Your task to perform on an android device: Open location settings Image 0: 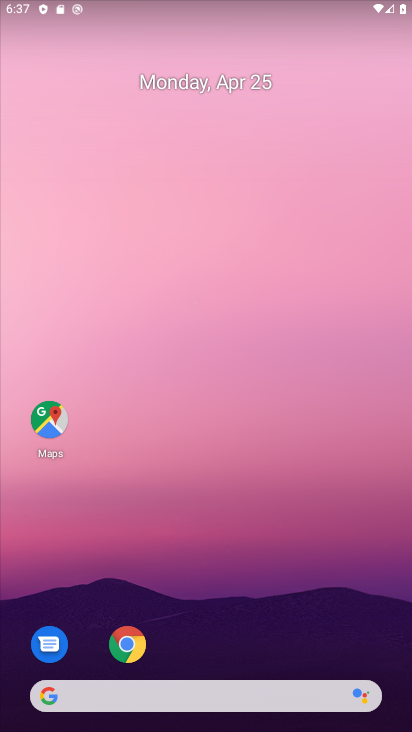
Step 0: drag from (256, 650) to (285, 170)
Your task to perform on an android device: Open location settings Image 1: 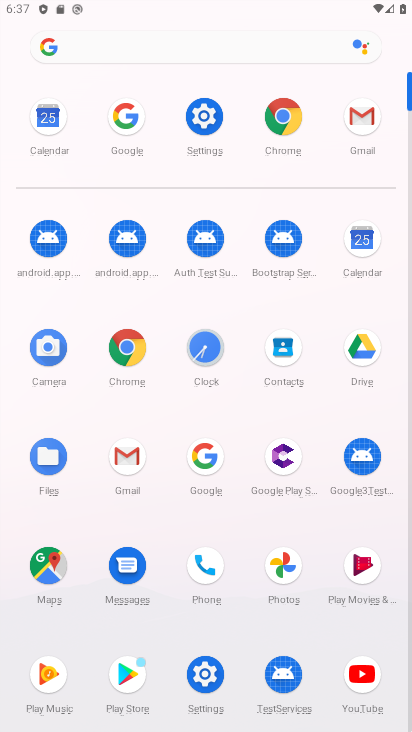
Step 1: click (245, 452)
Your task to perform on an android device: Open location settings Image 2: 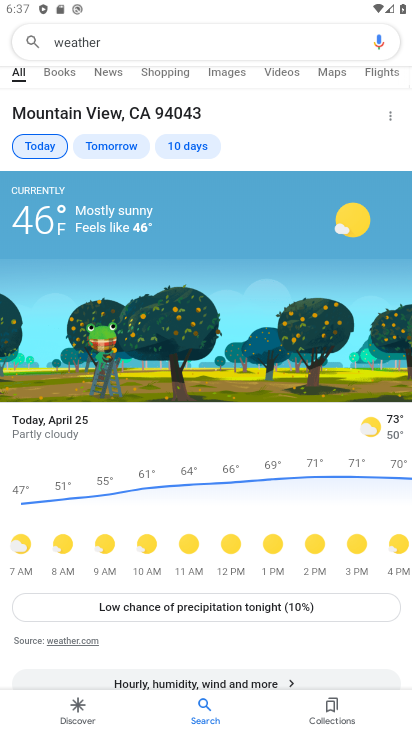
Step 2: press home button
Your task to perform on an android device: Open location settings Image 3: 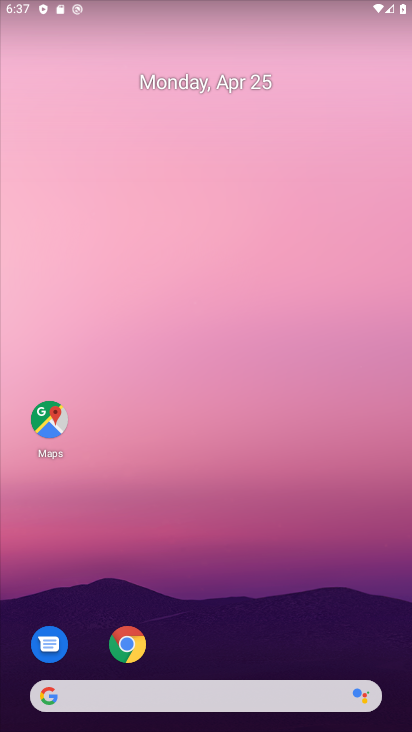
Step 3: drag from (276, 627) to (296, 94)
Your task to perform on an android device: Open location settings Image 4: 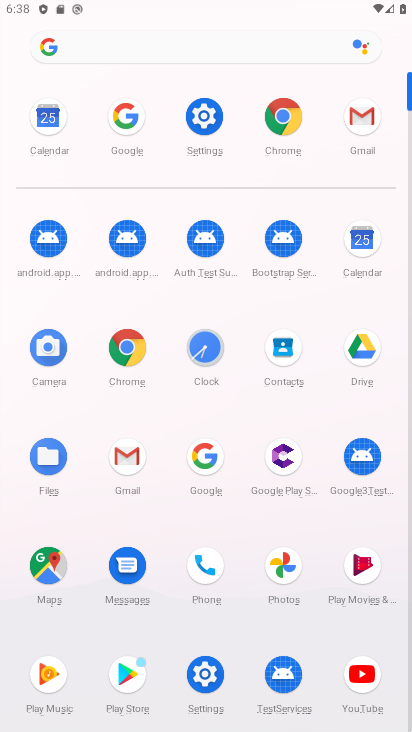
Step 4: click (203, 676)
Your task to perform on an android device: Open location settings Image 5: 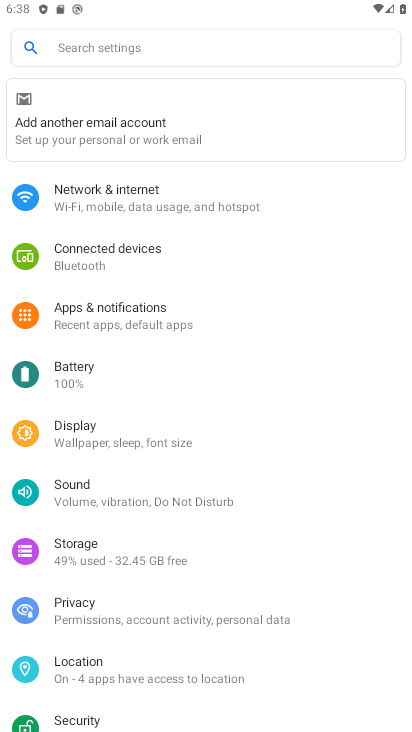
Step 5: click (168, 673)
Your task to perform on an android device: Open location settings Image 6: 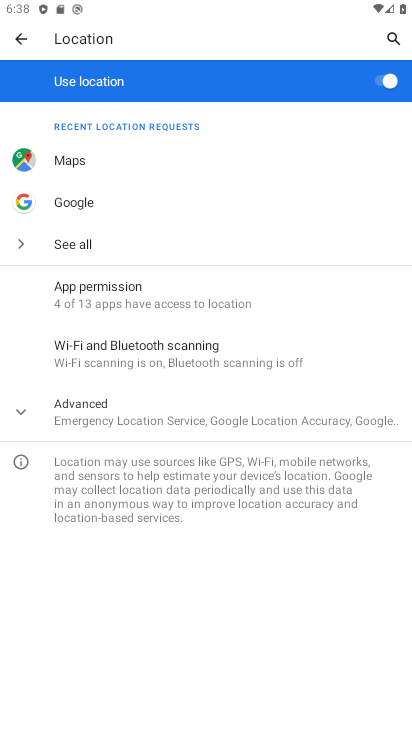
Step 6: task complete